Your task to perform on an android device: stop showing notifications on the lock screen Image 0: 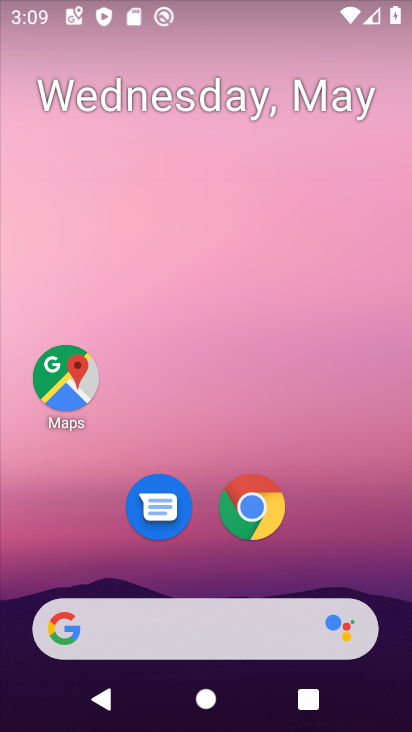
Step 0: drag from (193, 519) to (263, 95)
Your task to perform on an android device: stop showing notifications on the lock screen Image 1: 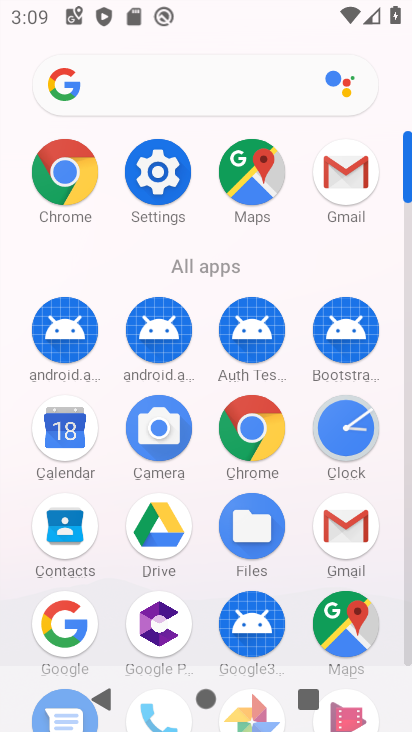
Step 1: click (171, 157)
Your task to perform on an android device: stop showing notifications on the lock screen Image 2: 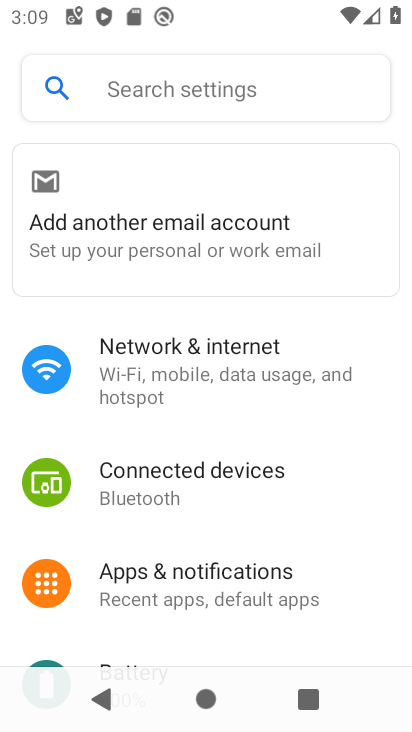
Step 2: click (201, 597)
Your task to perform on an android device: stop showing notifications on the lock screen Image 3: 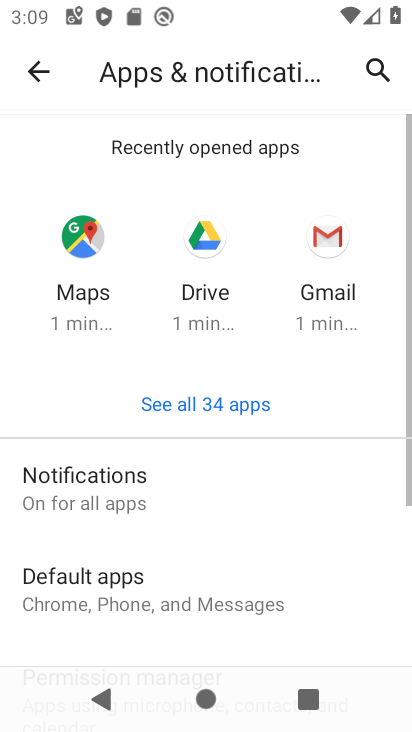
Step 3: drag from (168, 590) to (222, 107)
Your task to perform on an android device: stop showing notifications on the lock screen Image 4: 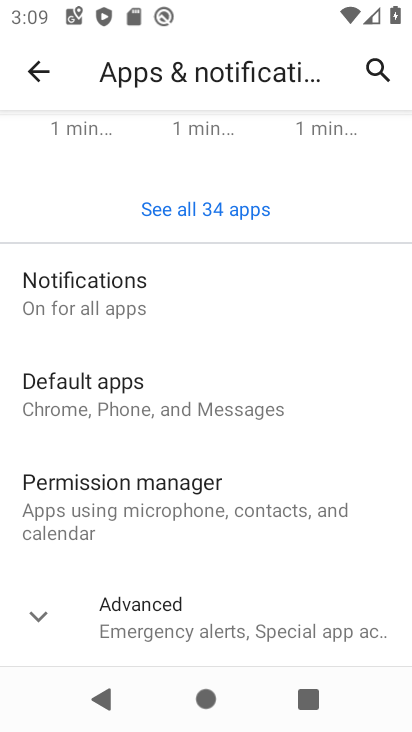
Step 4: click (118, 290)
Your task to perform on an android device: stop showing notifications on the lock screen Image 5: 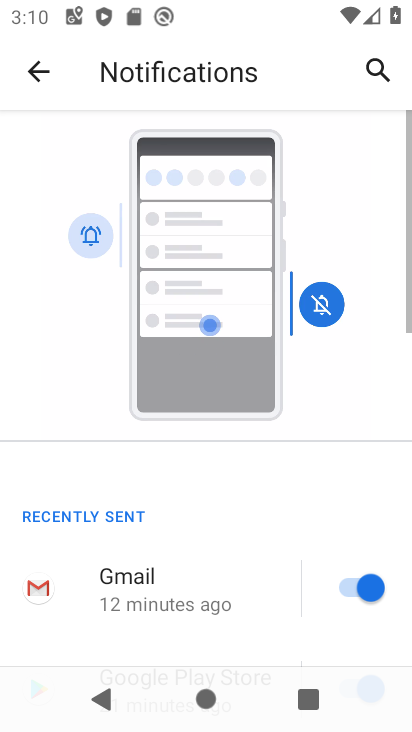
Step 5: drag from (146, 620) to (212, 88)
Your task to perform on an android device: stop showing notifications on the lock screen Image 6: 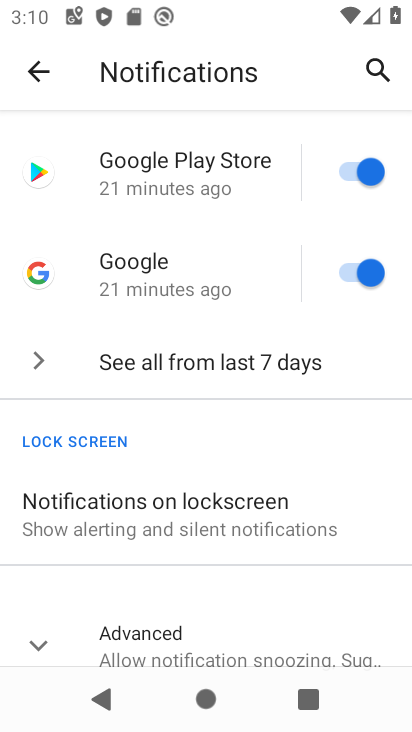
Step 6: click (138, 515)
Your task to perform on an android device: stop showing notifications on the lock screen Image 7: 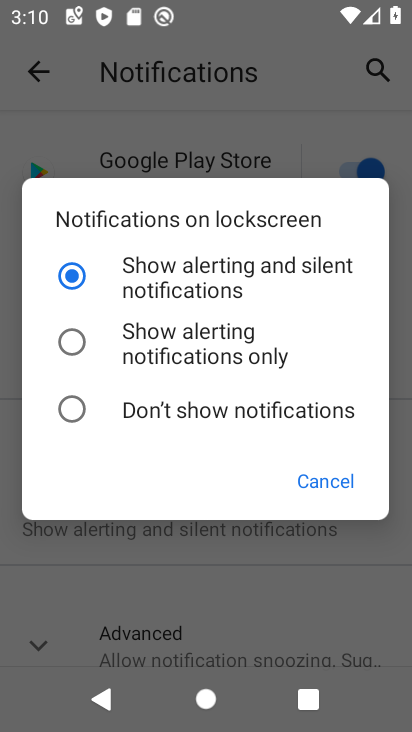
Step 7: click (85, 419)
Your task to perform on an android device: stop showing notifications on the lock screen Image 8: 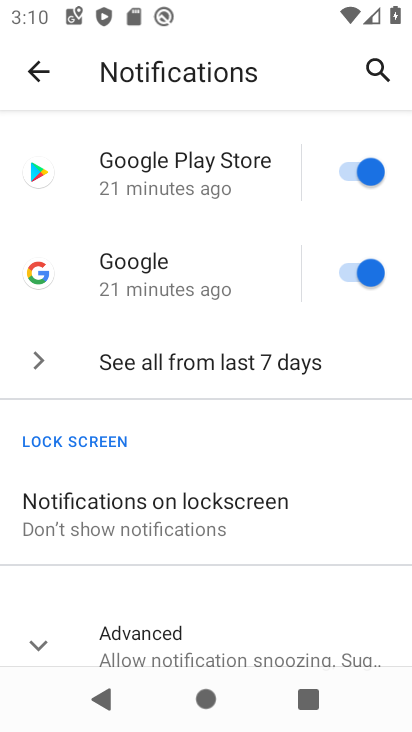
Step 8: task complete